Your task to perform on an android device: Open ESPN.com Image 0: 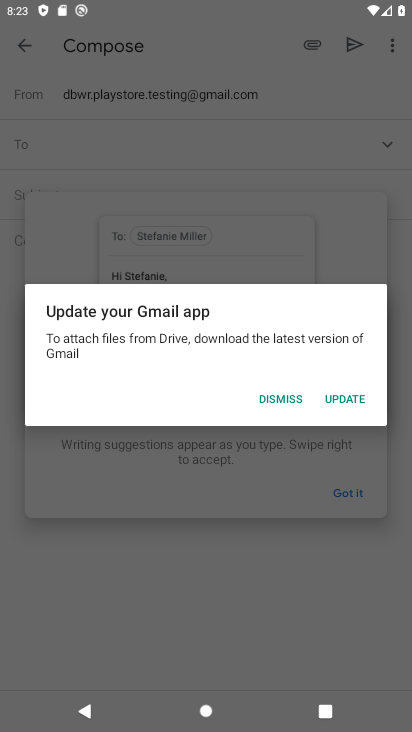
Step 0: press home button
Your task to perform on an android device: Open ESPN.com Image 1: 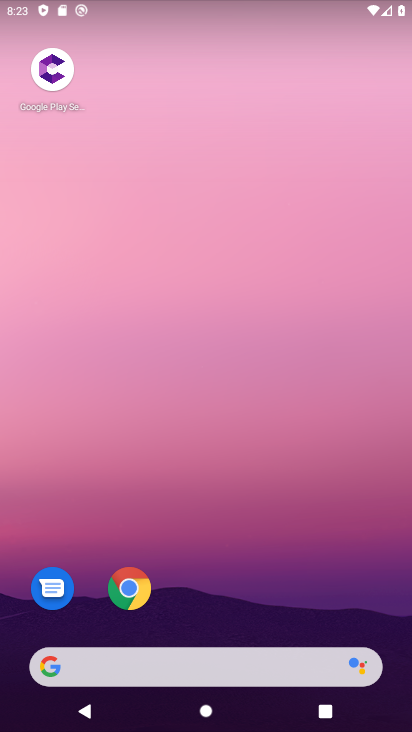
Step 1: click (140, 589)
Your task to perform on an android device: Open ESPN.com Image 2: 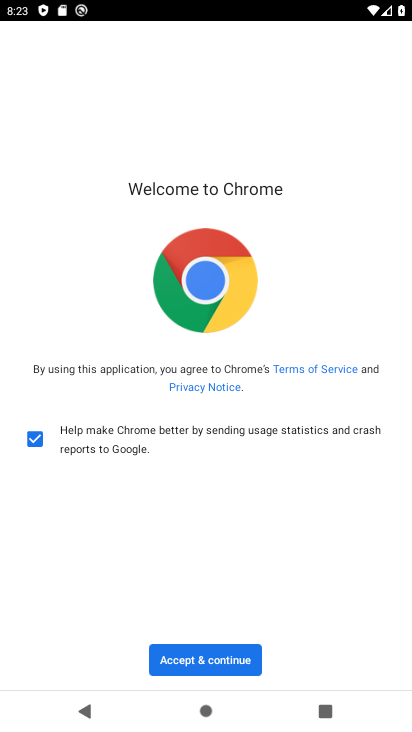
Step 2: click (201, 661)
Your task to perform on an android device: Open ESPN.com Image 3: 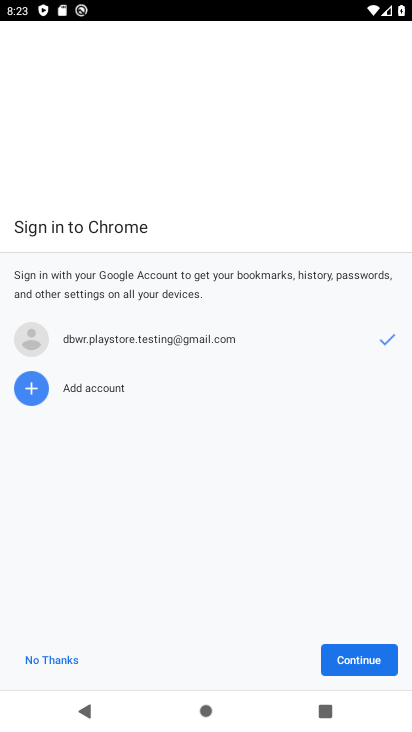
Step 3: click (351, 655)
Your task to perform on an android device: Open ESPN.com Image 4: 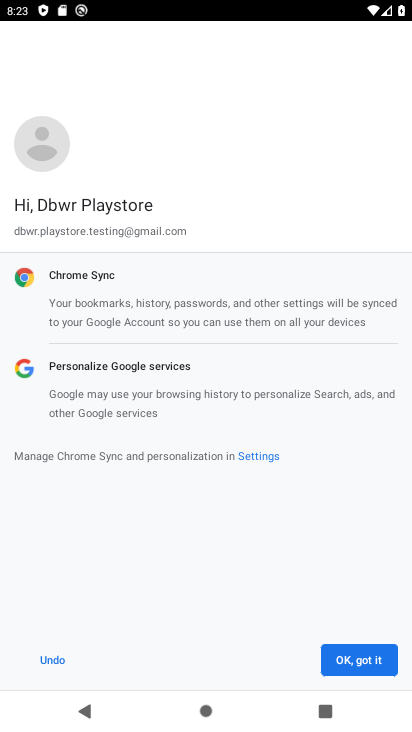
Step 4: click (351, 655)
Your task to perform on an android device: Open ESPN.com Image 5: 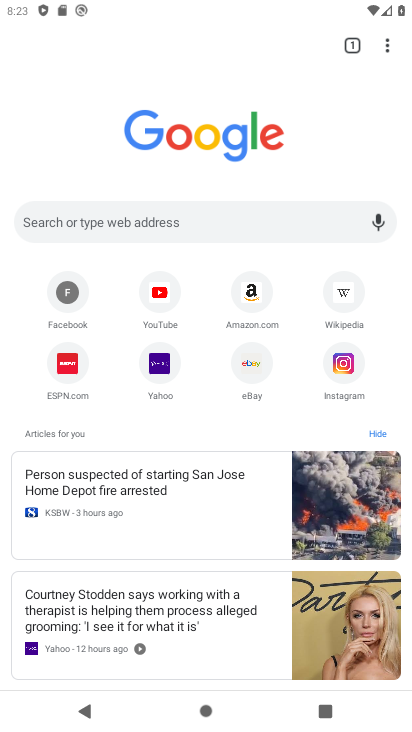
Step 5: click (68, 365)
Your task to perform on an android device: Open ESPN.com Image 6: 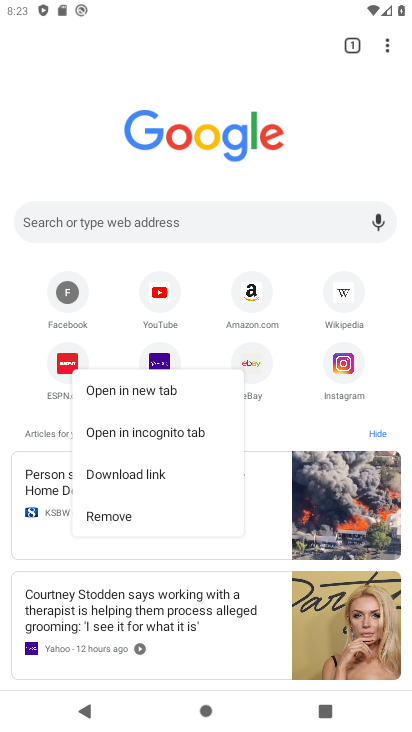
Step 6: click (63, 354)
Your task to perform on an android device: Open ESPN.com Image 7: 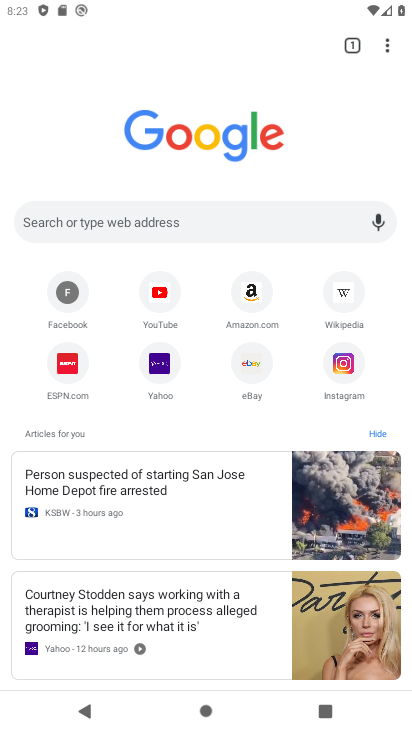
Step 7: click (54, 366)
Your task to perform on an android device: Open ESPN.com Image 8: 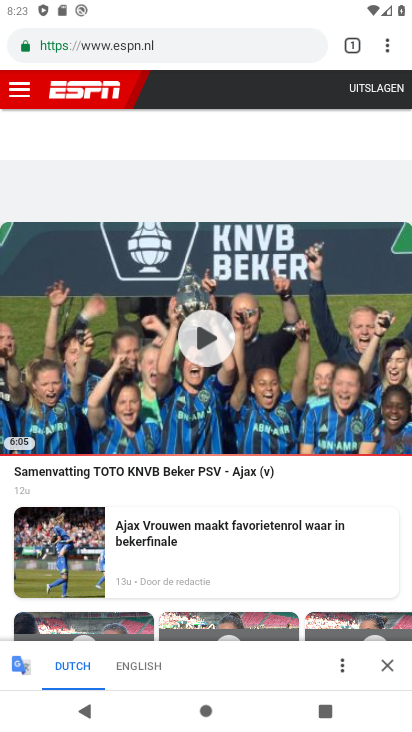
Step 8: task complete